Your task to perform on an android device: turn on javascript in the chrome app Image 0: 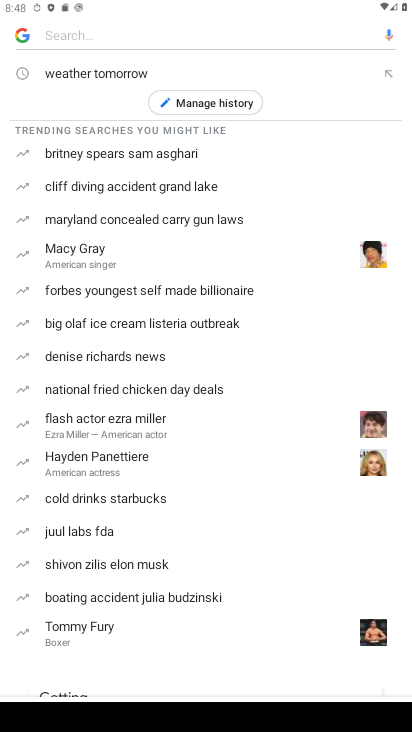
Step 0: press back button
Your task to perform on an android device: turn on javascript in the chrome app Image 1: 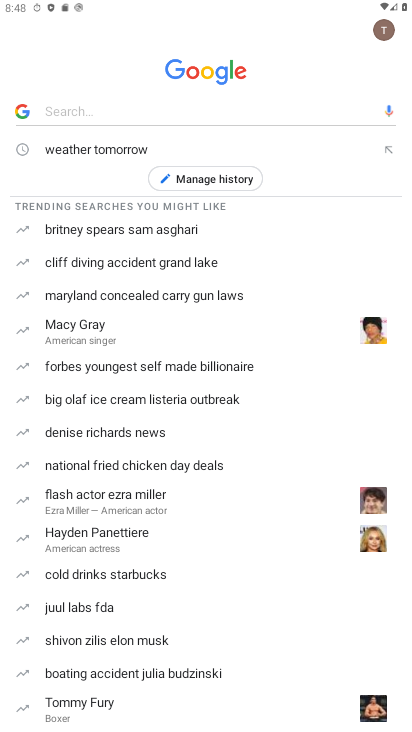
Step 1: press home button
Your task to perform on an android device: turn on javascript in the chrome app Image 2: 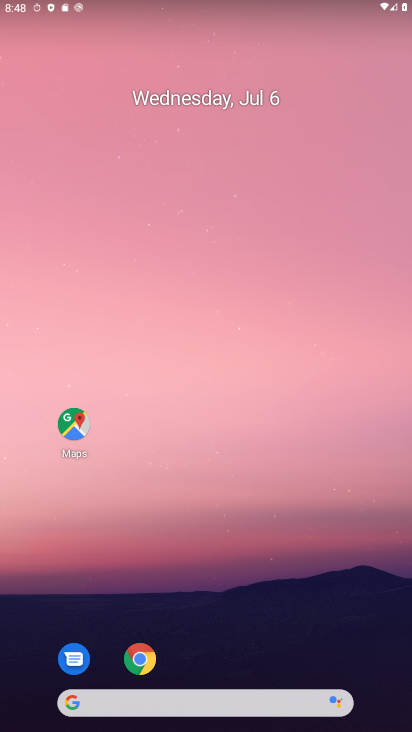
Step 2: drag from (376, 625) to (367, 130)
Your task to perform on an android device: turn on javascript in the chrome app Image 3: 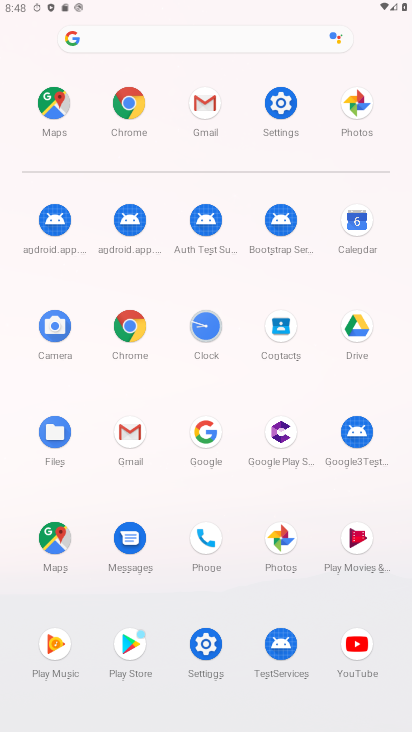
Step 3: click (132, 326)
Your task to perform on an android device: turn on javascript in the chrome app Image 4: 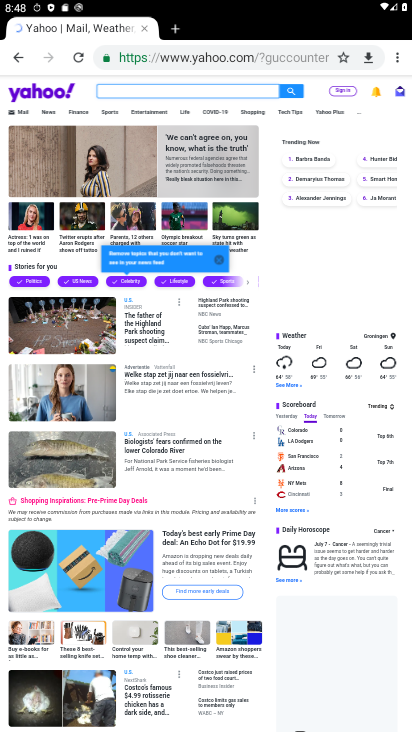
Step 4: click (398, 53)
Your task to perform on an android device: turn on javascript in the chrome app Image 5: 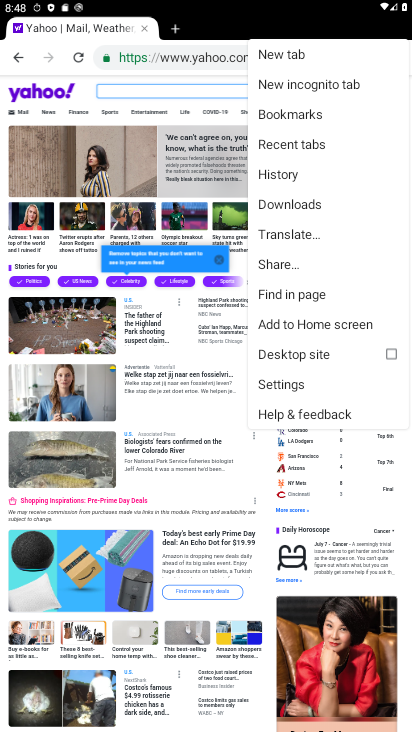
Step 5: click (323, 382)
Your task to perform on an android device: turn on javascript in the chrome app Image 6: 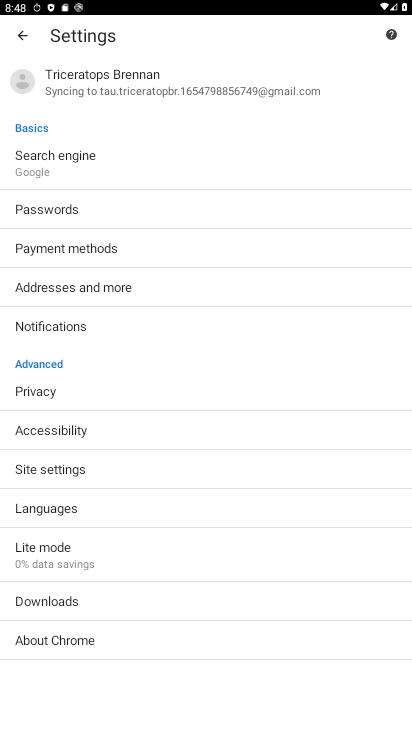
Step 6: click (276, 469)
Your task to perform on an android device: turn on javascript in the chrome app Image 7: 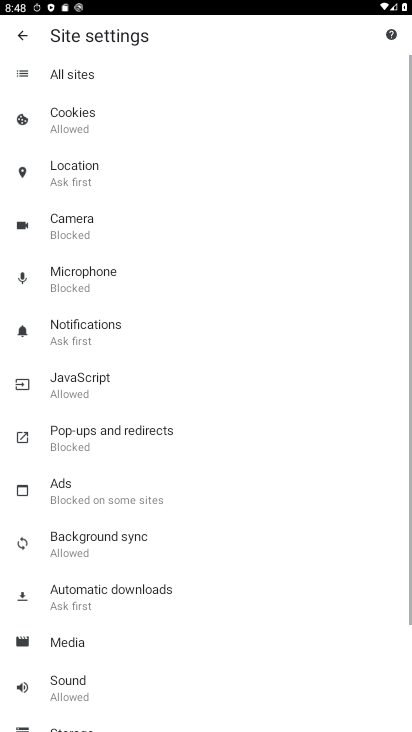
Step 7: drag from (293, 538) to (289, 279)
Your task to perform on an android device: turn on javascript in the chrome app Image 8: 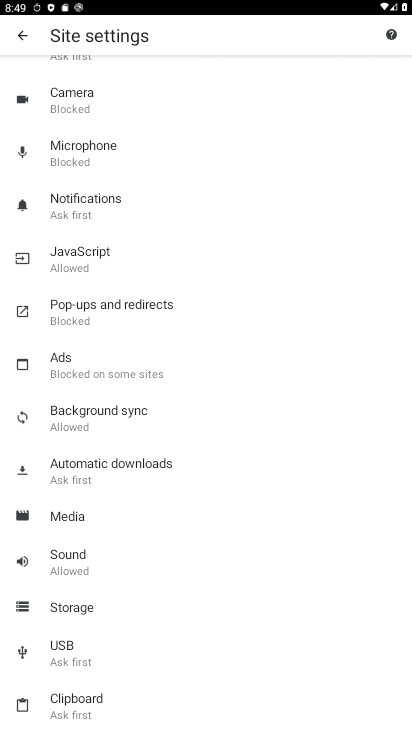
Step 8: drag from (289, 271) to (289, 335)
Your task to perform on an android device: turn on javascript in the chrome app Image 9: 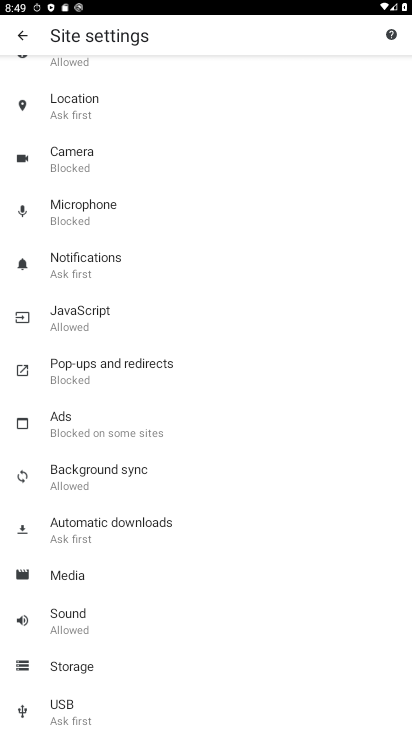
Step 9: drag from (293, 286) to (301, 447)
Your task to perform on an android device: turn on javascript in the chrome app Image 10: 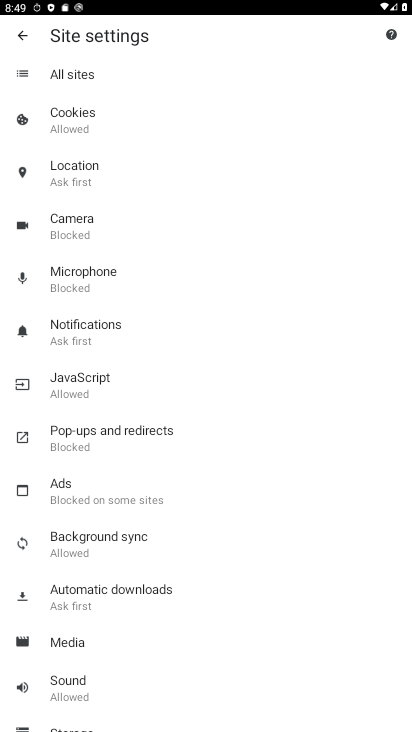
Step 10: click (141, 383)
Your task to perform on an android device: turn on javascript in the chrome app Image 11: 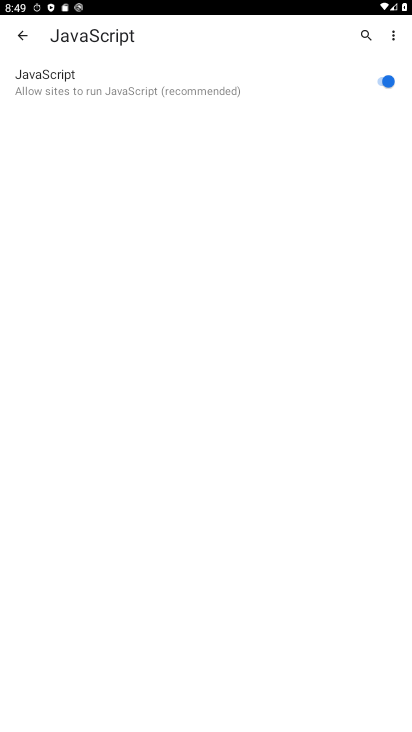
Step 11: task complete